Your task to perform on an android device: change text size in settings app Image 0: 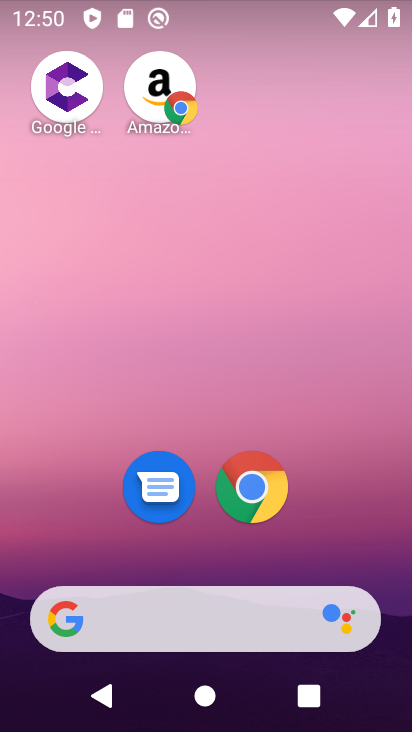
Step 0: drag from (301, 544) to (302, 156)
Your task to perform on an android device: change text size in settings app Image 1: 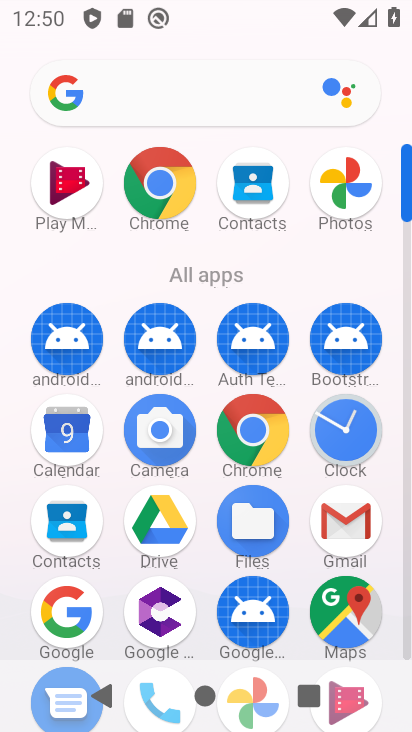
Step 1: drag from (270, 588) to (316, 171)
Your task to perform on an android device: change text size in settings app Image 2: 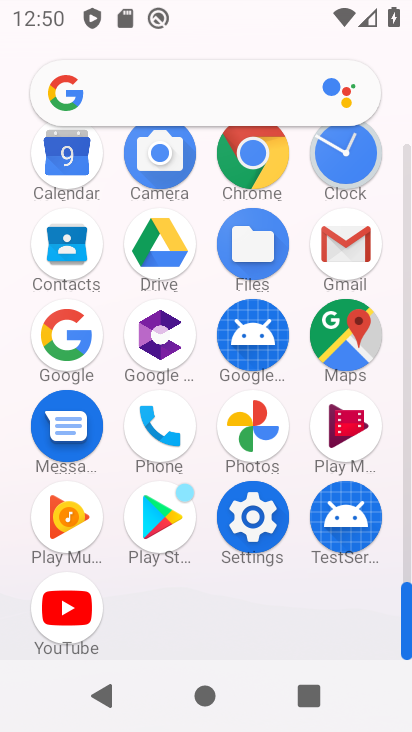
Step 2: click (257, 508)
Your task to perform on an android device: change text size in settings app Image 3: 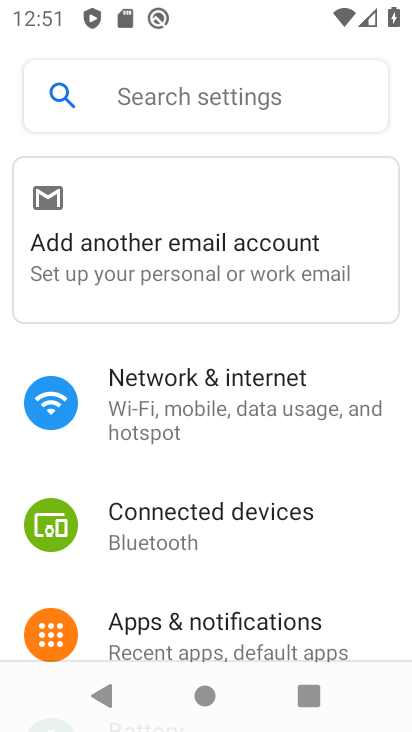
Step 3: drag from (256, 508) to (244, 119)
Your task to perform on an android device: change text size in settings app Image 4: 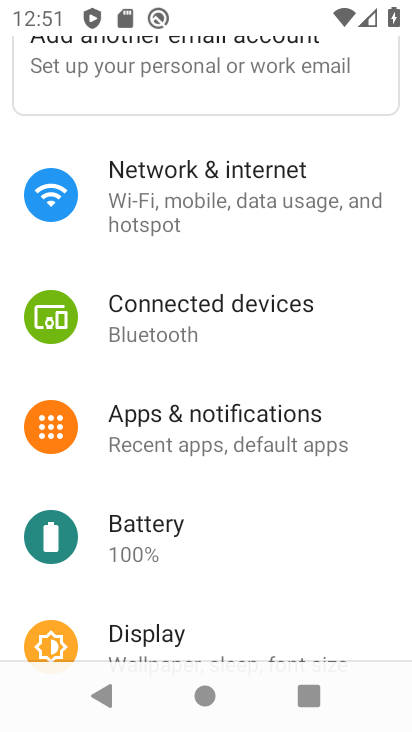
Step 4: drag from (277, 519) to (296, 243)
Your task to perform on an android device: change text size in settings app Image 5: 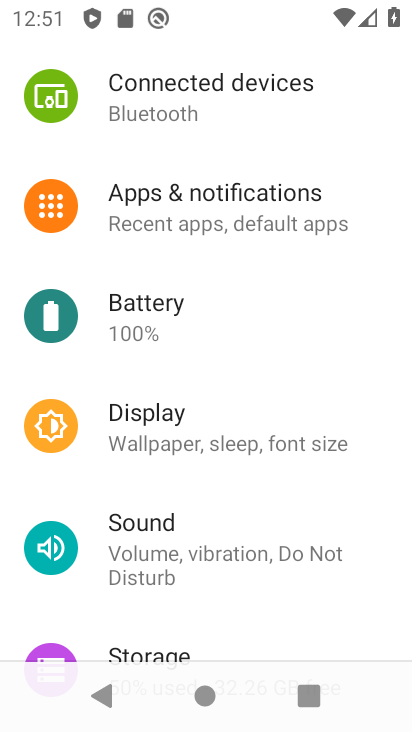
Step 5: click (311, 447)
Your task to perform on an android device: change text size in settings app Image 6: 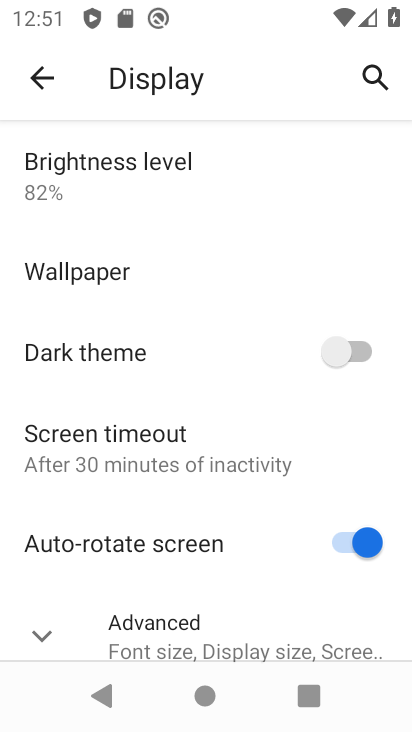
Step 6: drag from (256, 584) to (254, 269)
Your task to perform on an android device: change text size in settings app Image 7: 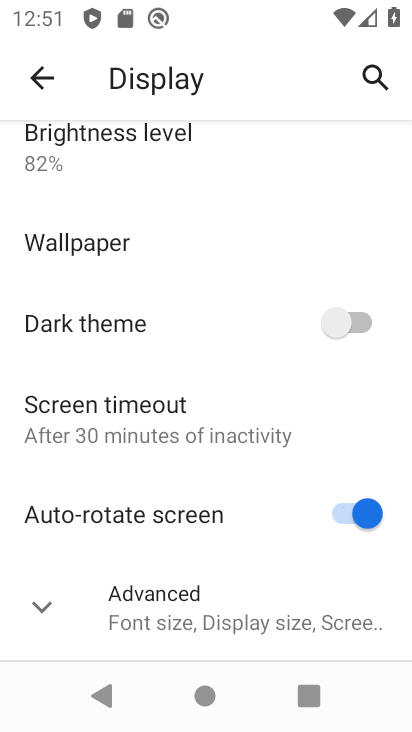
Step 7: click (246, 604)
Your task to perform on an android device: change text size in settings app Image 8: 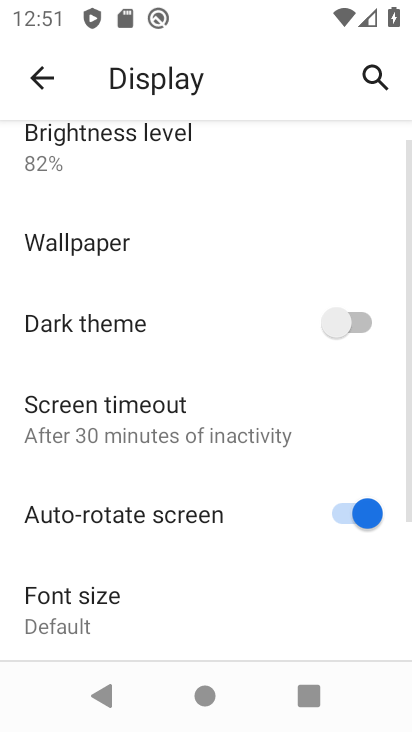
Step 8: click (152, 596)
Your task to perform on an android device: change text size in settings app Image 9: 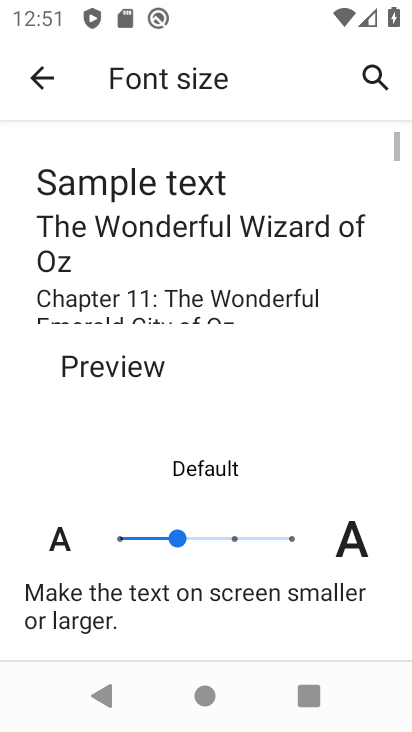
Step 9: click (237, 543)
Your task to perform on an android device: change text size in settings app Image 10: 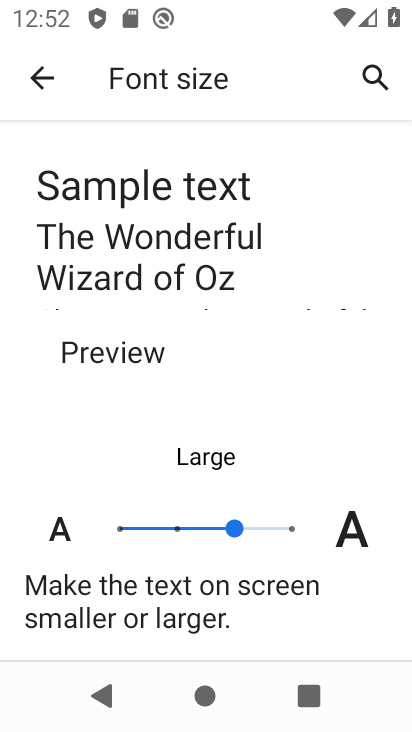
Step 10: task complete